Your task to perform on an android device: turn off translation in the chrome app Image 0: 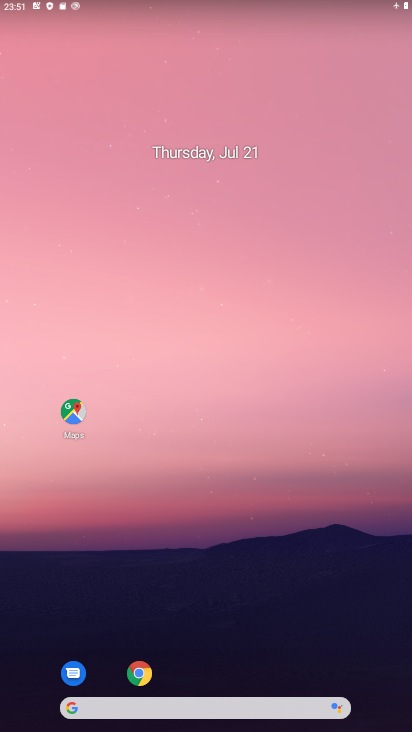
Step 0: click (151, 662)
Your task to perform on an android device: turn off translation in the chrome app Image 1: 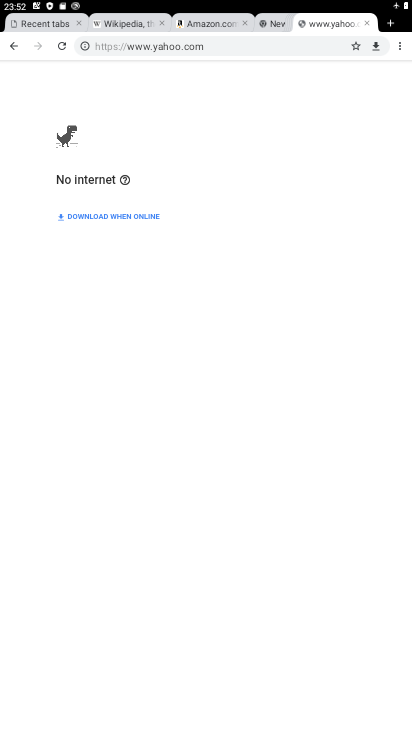
Step 1: click (403, 41)
Your task to perform on an android device: turn off translation in the chrome app Image 2: 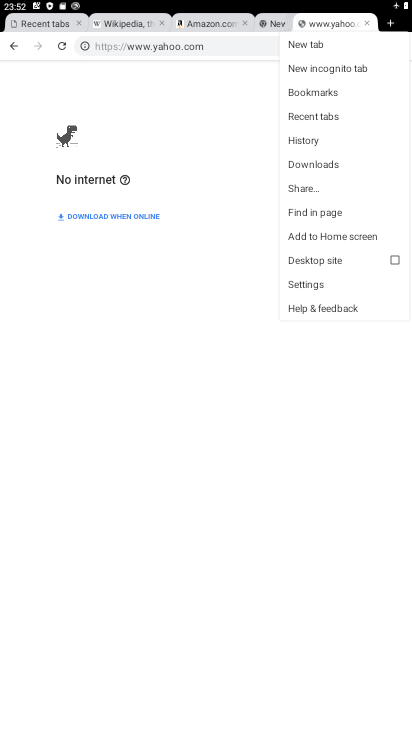
Step 2: click (318, 280)
Your task to perform on an android device: turn off translation in the chrome app Image 3: 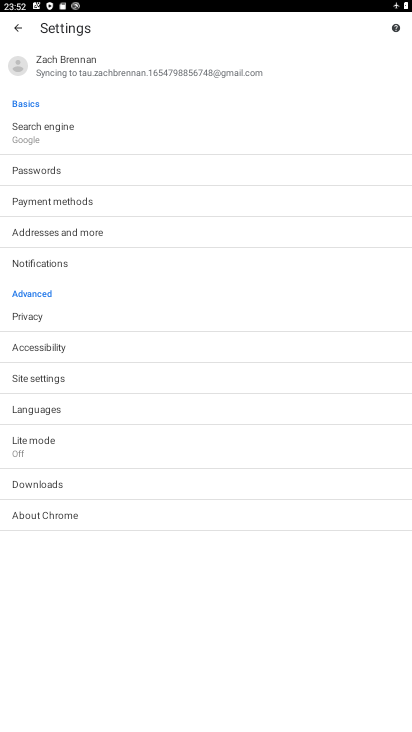
Step 3: click (67, 404)
Your task to perform on an android device: turn off translation in the chrome app Image 4: 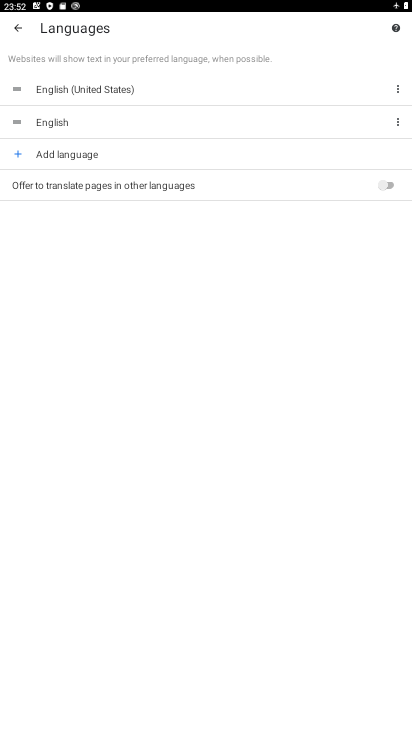
Step 4: task complete